Your task to perform on an android device: stop showing notifications on the lock screen Image 0: 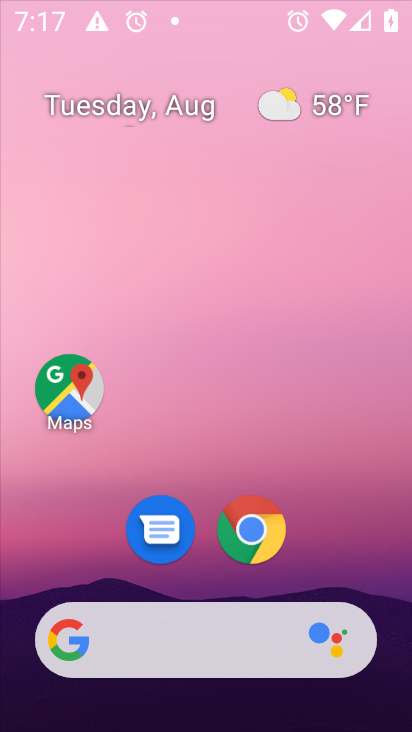
Step 0: press home button
Your task to perform on an android device: stop showing notifications on the lock screen Image 1: 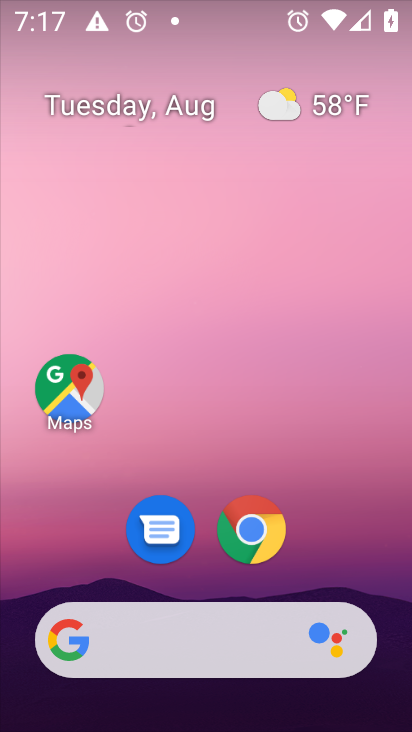
Step 1: drag from (211, 588) to (217, 139)
Your task to perform on an android device: stop showing notifications on the lock screen Image 2: 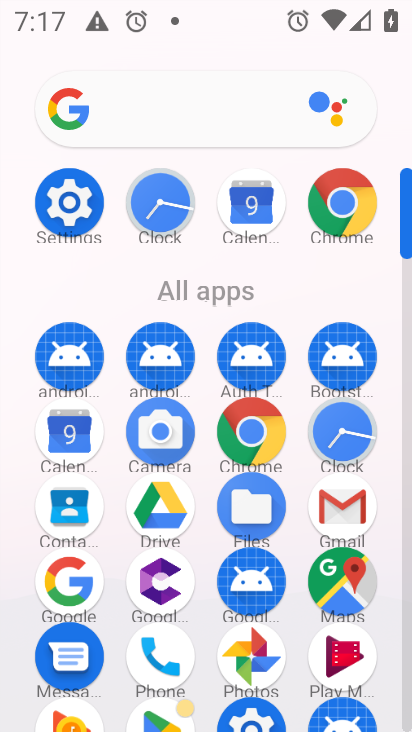
Step 2: click (67, 202)
Your task to perform on an android device: stop showing notifications on the lock screen Image 3: 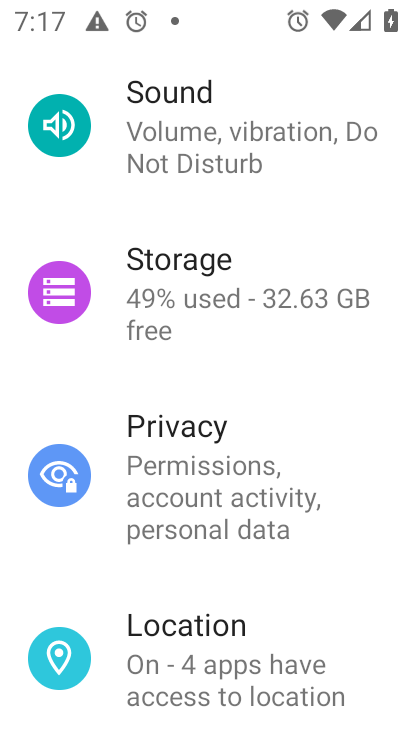
Step 3: drag from (270, 174) to (315, 727)
Your task to perform on an android device: stop showing notifications on the lock screen Image 4: 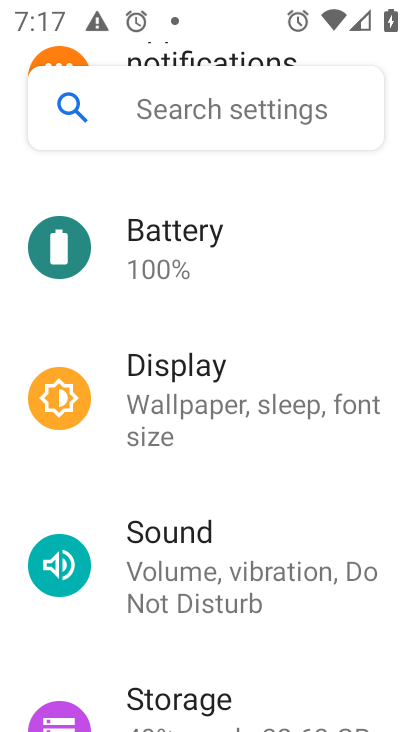
Step 4: drag from (320, 290) to (368, 727)
Your task to perform on an android device: stop showing notifications on the lock screen Image 5: 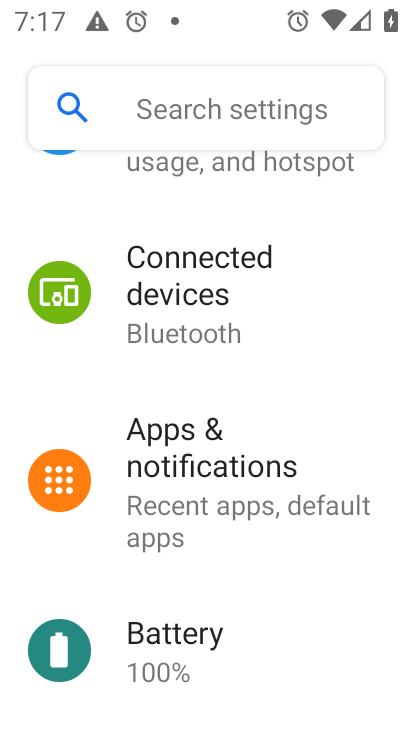
Step 5: click (177, 450)
Your task to perform on an android device: stop showing notifications on the lock screen Image 6: 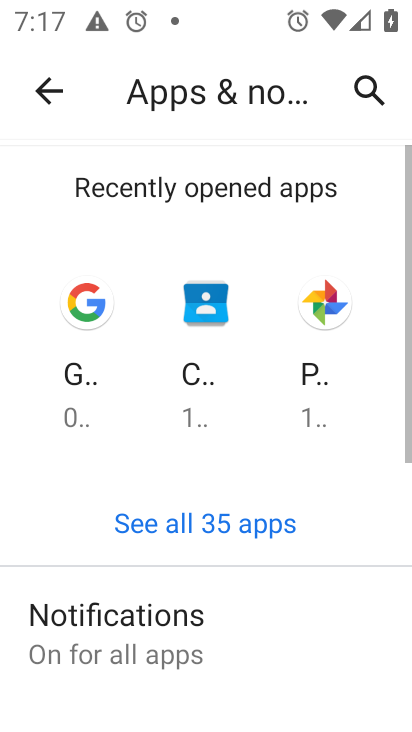
Step 6: click (122, 636)
Your task to perform on an android device: stop showing notifications on the lock screen Image 7: 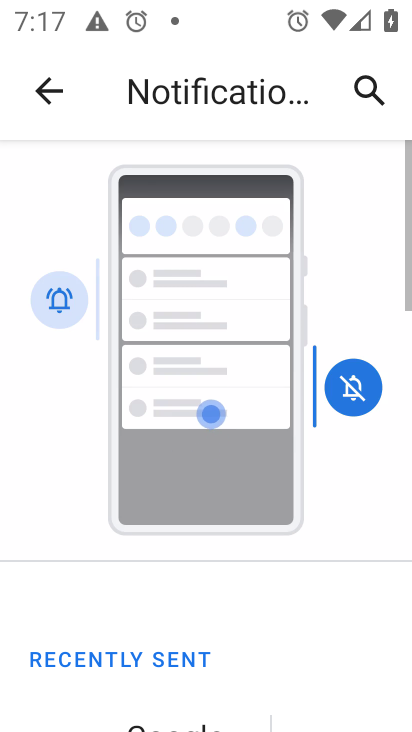
Step 7: drag from (320, 635) to (273, 33)
Your task to perform on an android device: stop showing notifications on the lock screen Image 8: 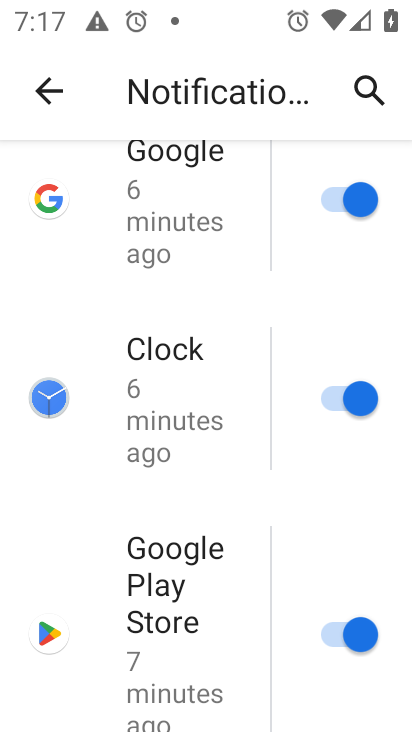
Step 8: drag from (260, 521) to (272, 59)
Your task to perform on an android device: stop showing notifications on the lock screen Image 9: 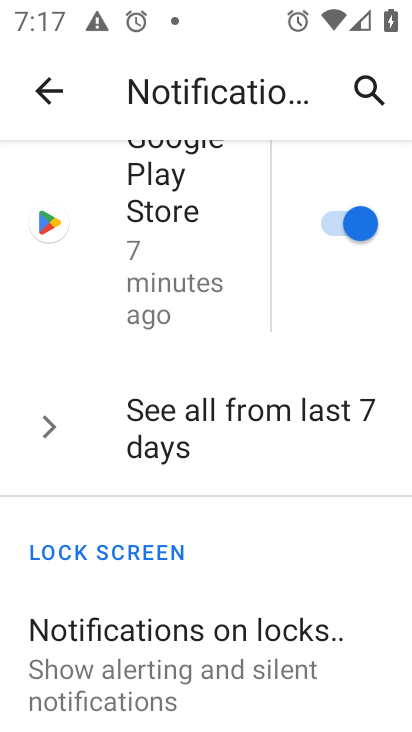
Step 9: drag from (280, 547) to (297, 230)
Your task to perform on an android device: stop showing notifications on the lock screen Image 10: 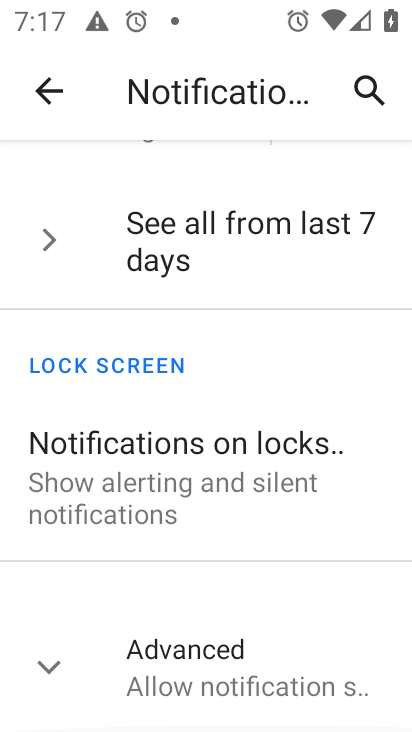
Step 10: click (178, 488)
Your task to perform on an android device: stop showing notifications on the lock screen Image 11: 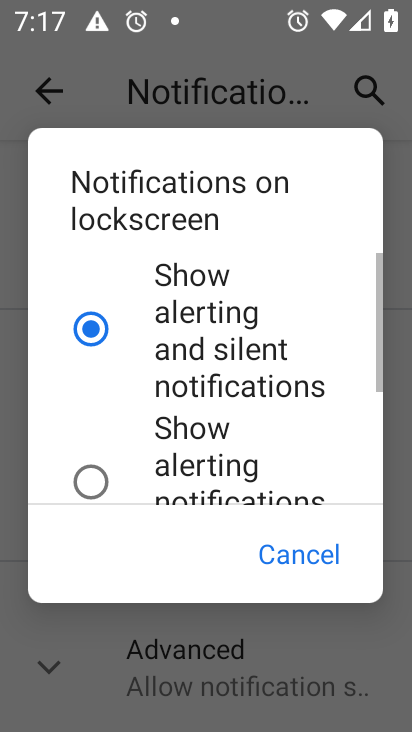
Step 11: drag from (198, 447) to (222, 111)
Your task to perform on an android device: stop showing notifications on the lock screen Image 12: 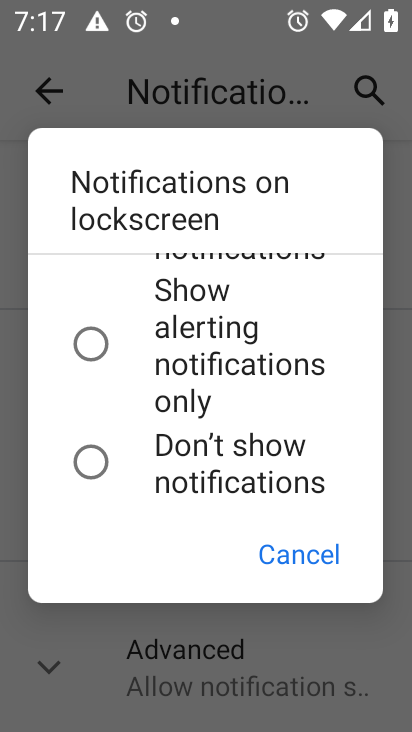
Step 12: click (90, 463)
Your task to perform on an android device: stop showing notifications on the lock screen Image 13: 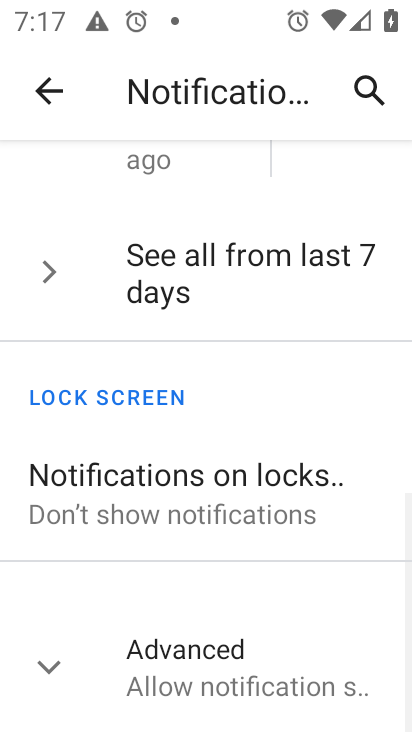
Step 13: task complete